Your task to perform on an android device: turn off smart reply in the gmail app Image 0: 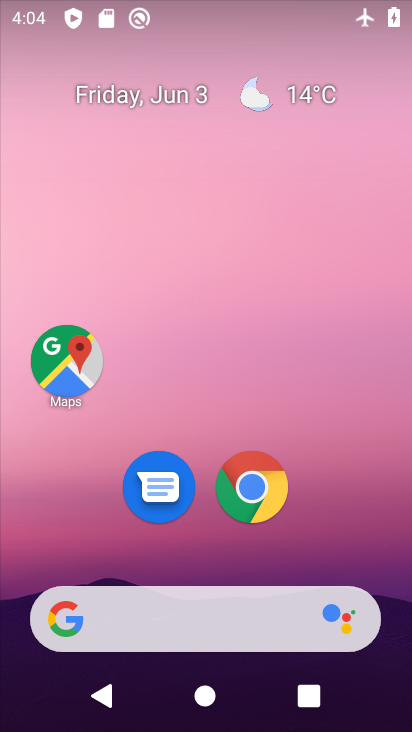
Step 0: drag from (139, 506) to (251, 56)
Your task to perform on an android device: turn off smart reply in the gmail app Image 1: 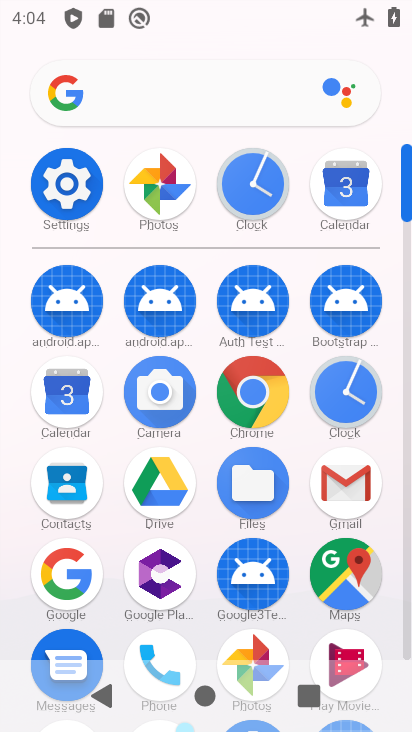
Step 1: click (334, 475)
Your task to perform on an android device: turn off smart reply in the gmail app Image 2: 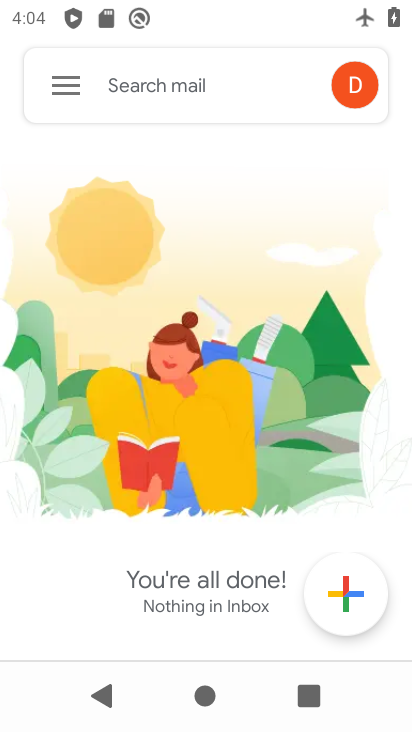
Step 2: click (43, 73)
Your task to perform on an android device: turn off smart reply in the gmail app Image 3: 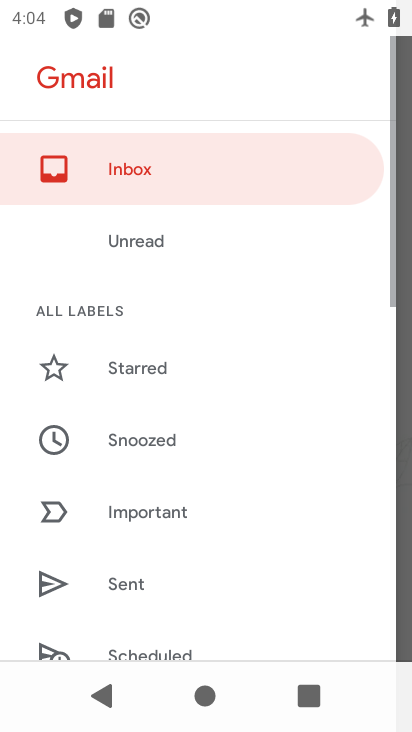
Step 3: drag from (259, 612) to (312, 41)
Your task to perform on an android device: turn off smart reply in the gmail app Image 4: 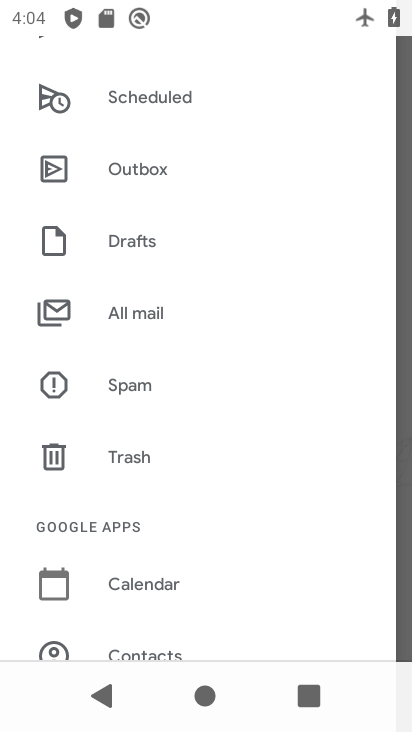
Step 4: drag from (195, 641) to (276, 178)
Your task to perform on an android device: turn off smart reply in the gmail app Image 5: 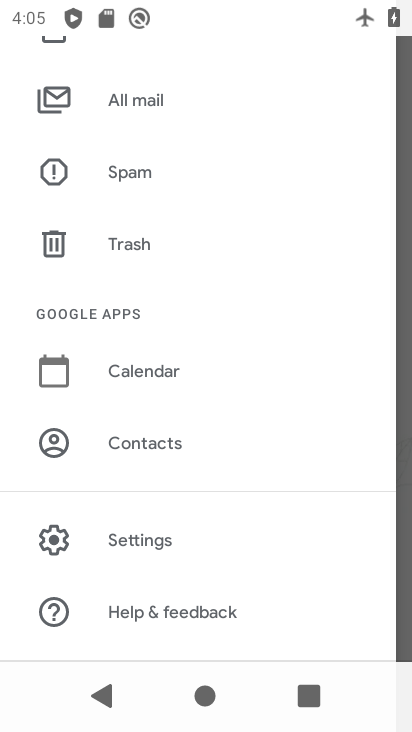
Step 5: click (174, 534)
Your task to perform on an android device: turn off smart reply in the gmail app Image 6: 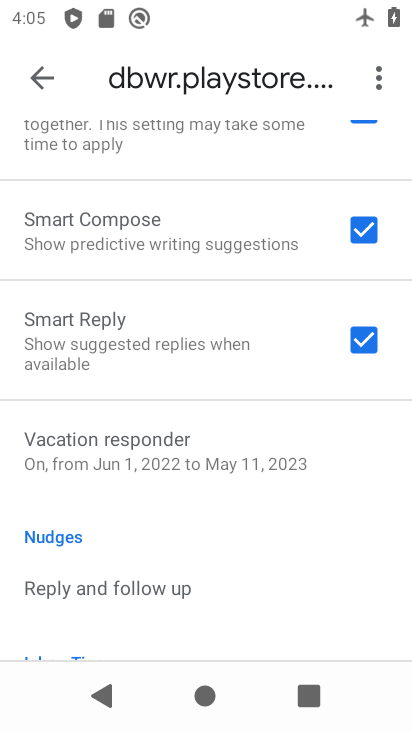
Step 6: click (365, 343)
Your task to perform on an android device: turn off smart reply in the gmail app Image 7: 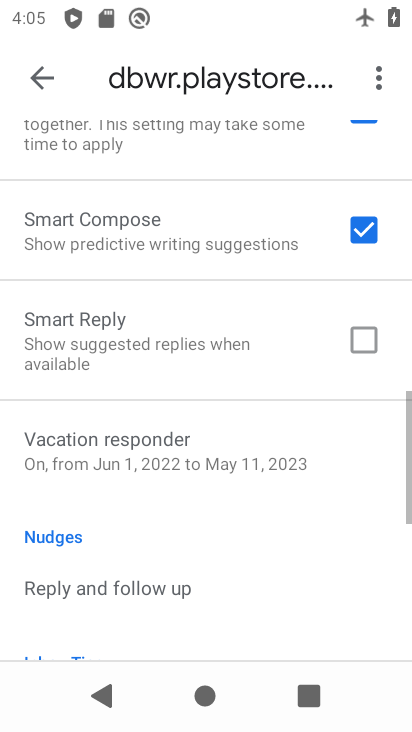
Step 7: task complete